Your task to perform on an android device: View the shopping cart on amazon. Search for usb-b on amazon, select the first entry, and add it to the cart. Image 0: 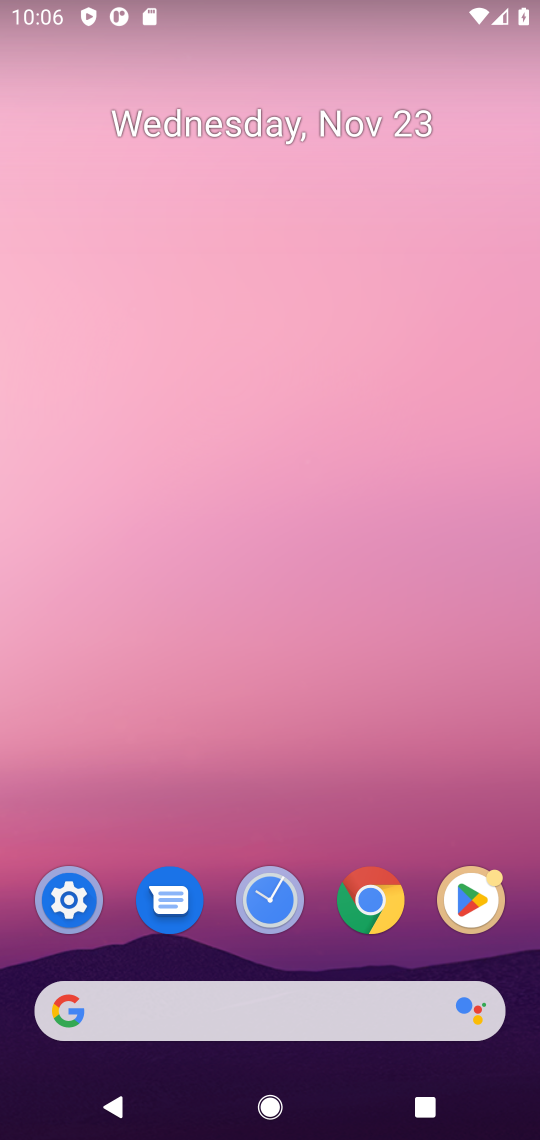
Step 0: click (188, 1037)
Your task to perform on an android device: View the shopping cart on amazon. Search for usb-b on amazon, select the first entry, and add it to the cart. Image 1: 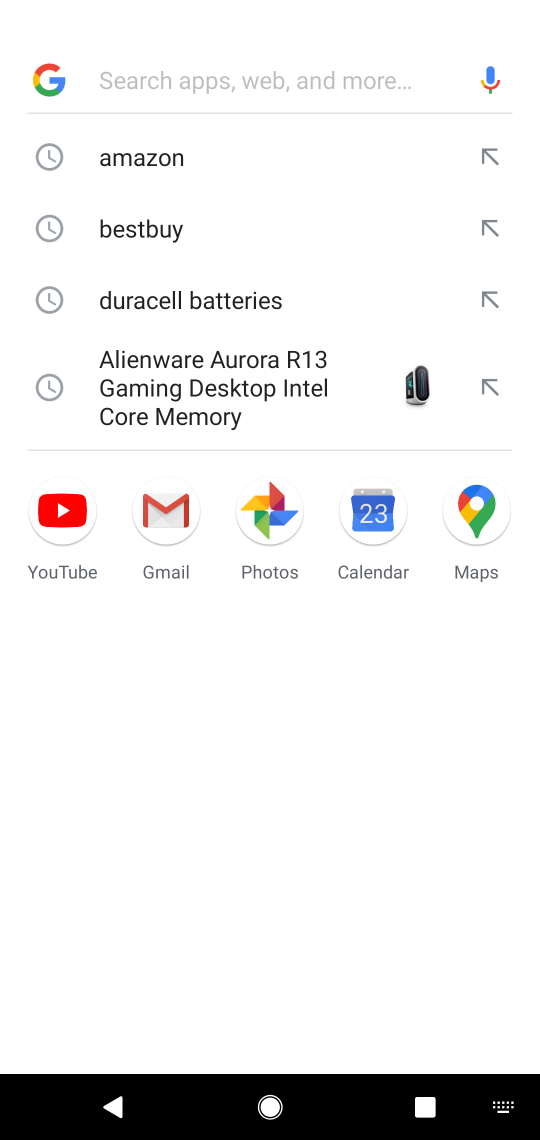
Step 1: click (191, 154)
Your task to perform on an android device: View the shopping cart on amazon. Search for usb-b on amazon, select the first entry, and add it to the cart. Image 2: 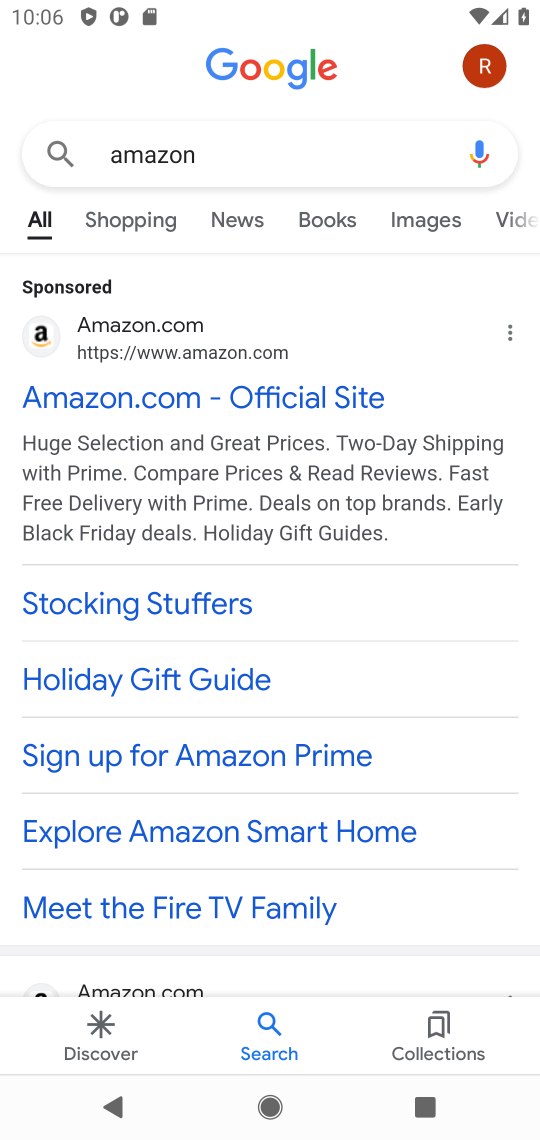
Step 2: click (158, 404)
Your task to perform on an android device: View the shopping cart on amazon. Search for usb-b on amazon, select the first entry, and add it to the cart. Image 3: 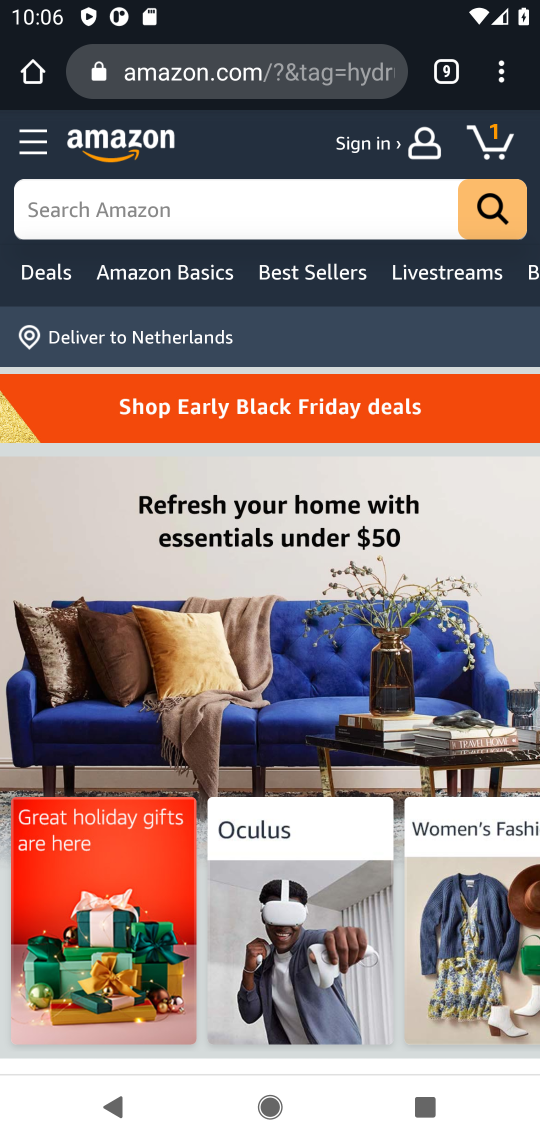
Step 3: click (198, 215)
Your task to perform on an android device: View the shopping cart on amazon. Search for usb-b on amazon, select the first entry, and add it to the cart. Image 4: 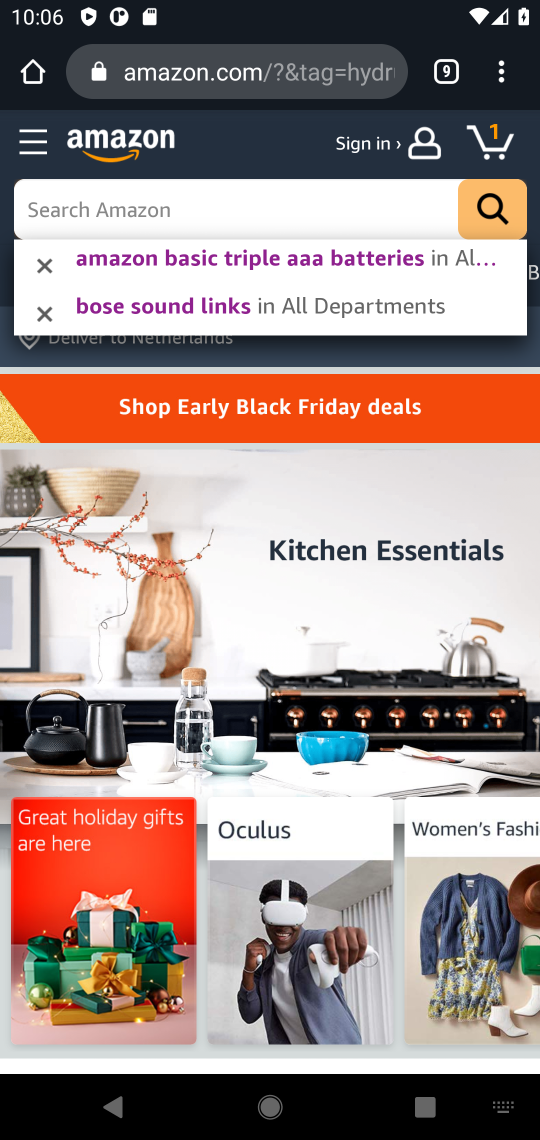
Step 4: type "usb-b"
Your task to perform on an android device: View the shopping cart on amazon. Search for usb-b on amazon, select the first entry, and add it to the cart. Image 5: 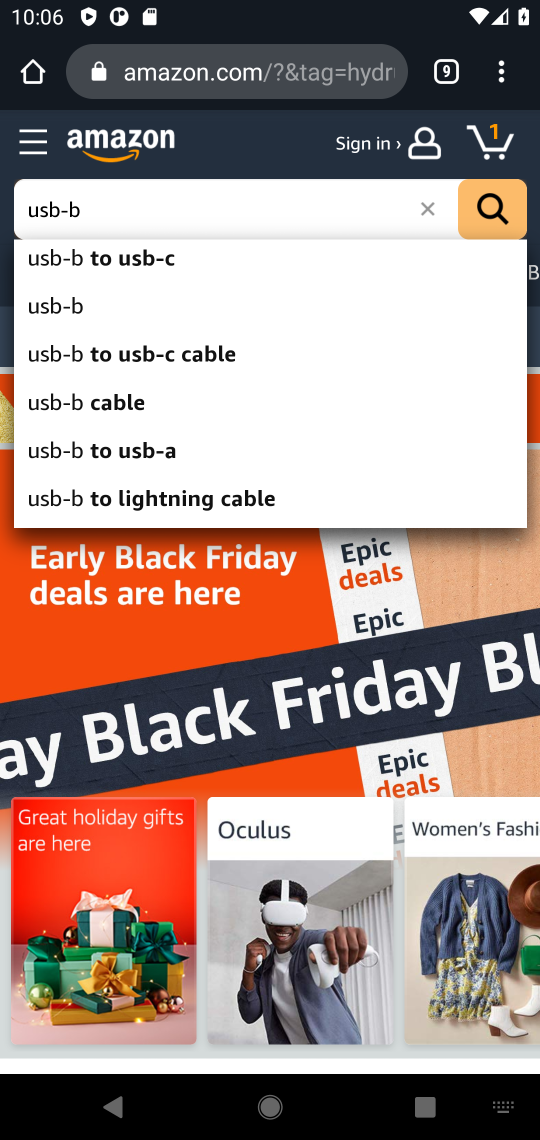
Step 5: click (168, 320)
Your task to perform on an android device: View the shopping cart on amazon. Search for usb-b on amazon, select the first entry, and add it to the cart. Image 6: 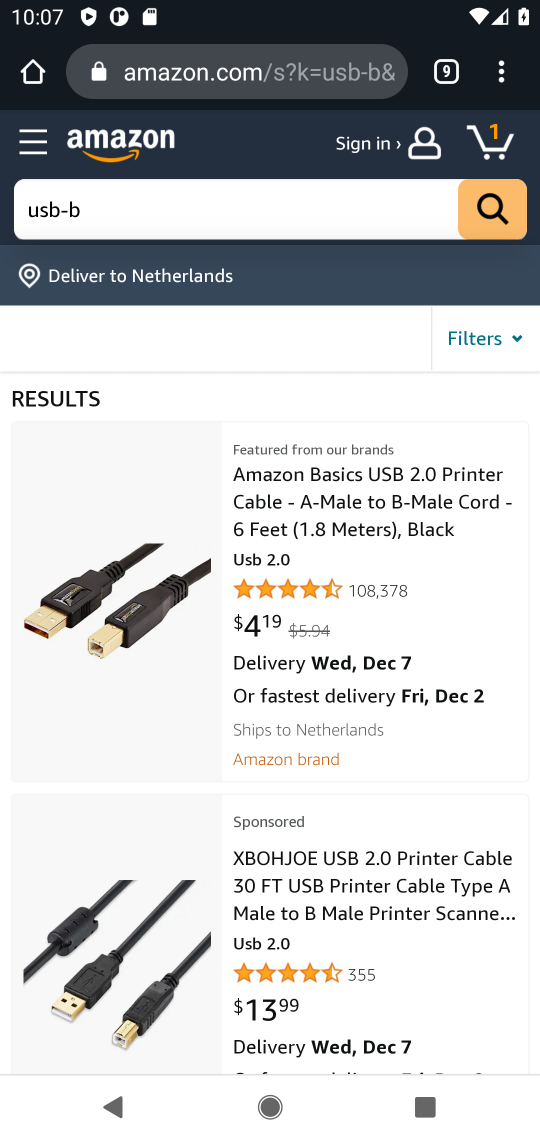
Step 6: click (349, 491)
Your task to perform on an android device: View the shopping cart on amazon. Search for usb-b on amazon, select the first entry, and add it to the cart. Image 7: 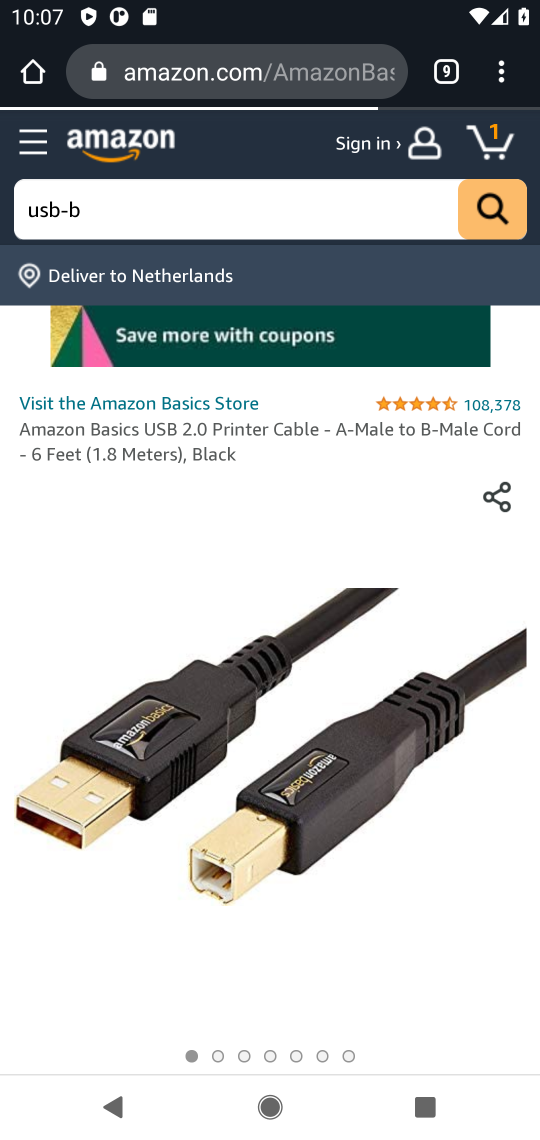
Step 7: drag from (375, 935) to (344, 524)
Your task to perform on an android device: View the shopping cart on amazon. Search for usb-b on amazon, select the first entry, and add it to the cart. Image 8: 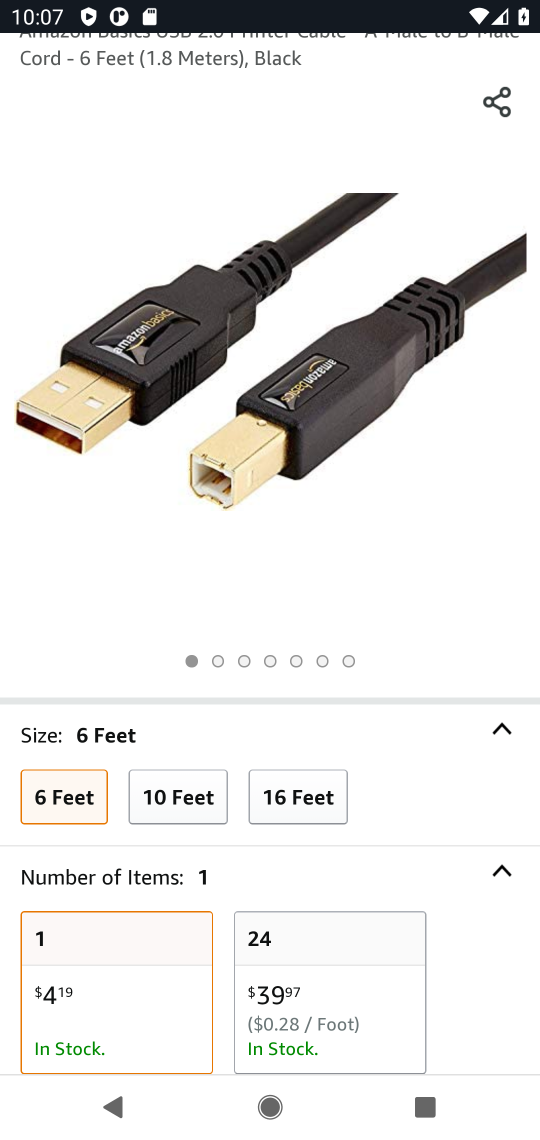
Step 8: drag from (481, 981) to (457, 439)
Your task to perform on an android device: View the shopping cart on amazon. Search for usb-b on amazon, select the first entry, and add it to the cart. Image 9: 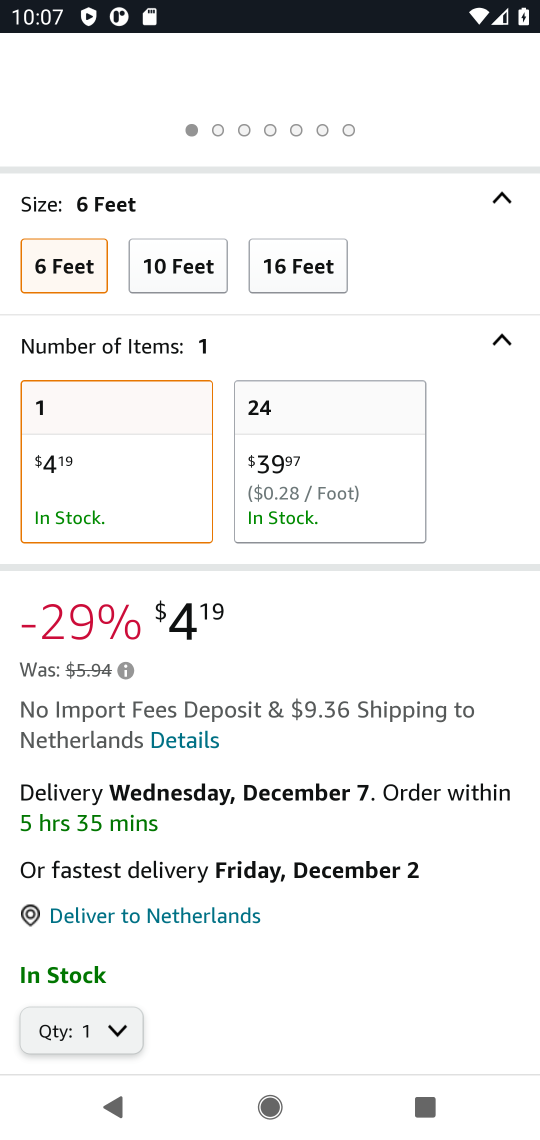
Step 9: drag from (312, 1003) to (314, 551)
Your task to perform on an android device: View the shopping cart on amazon. Search for usb-b on amazon, select the first entry, and add it to the cart. Image 10: 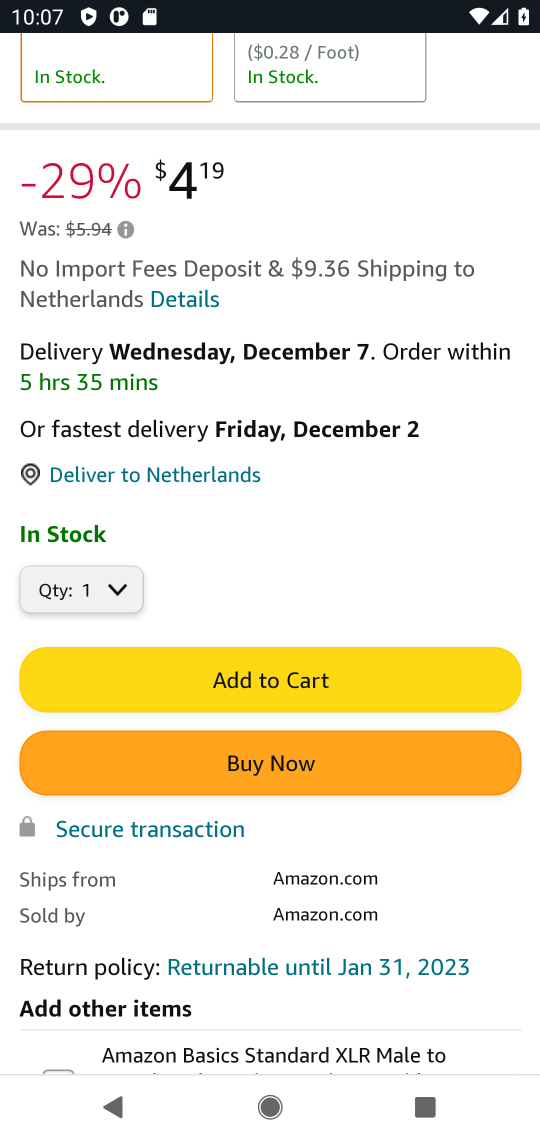
Step 10: click (307, 690)
Your task to perform on an android device: View the shopping cart on amazon. Search for usb-b on amazon, select the first entry, and add it to the cart. Image 11: 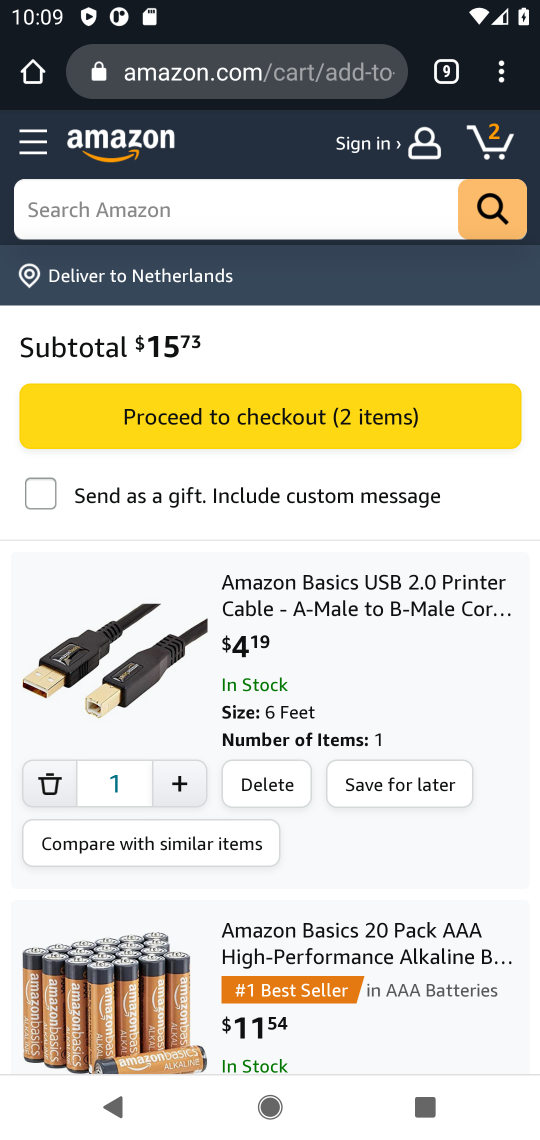
Step 11: task complete